Your task to perform on an android device: toggle notification dots Image 0: 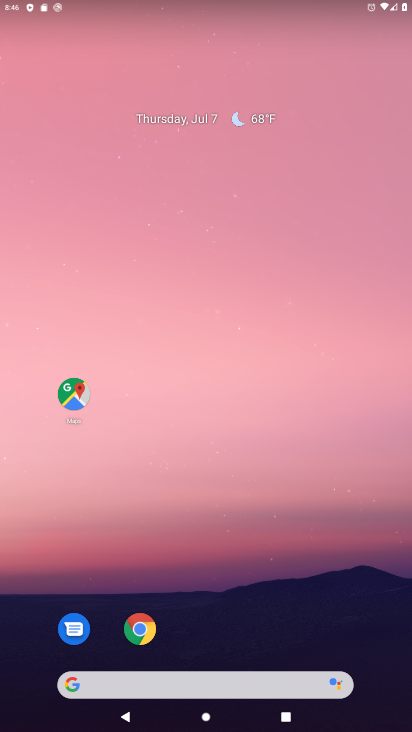
Step 0: drag from (216, 641) to (211, 140)
Your task to perform on an android device: toggle notification dots Image 1: 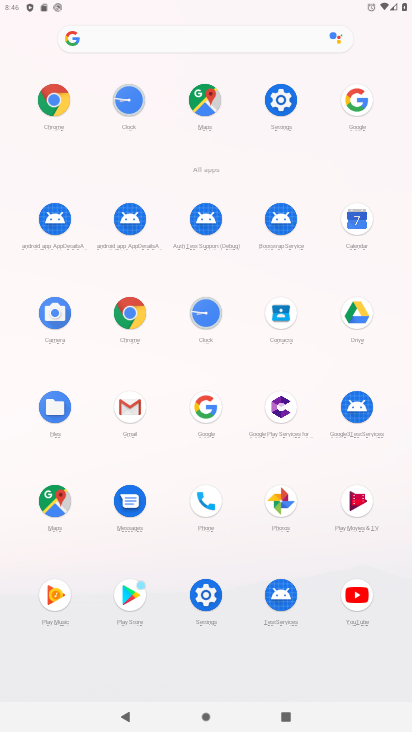
Step 1: click (283, 96)
Your task to perform on an android device: toggle notification dots Image 2: 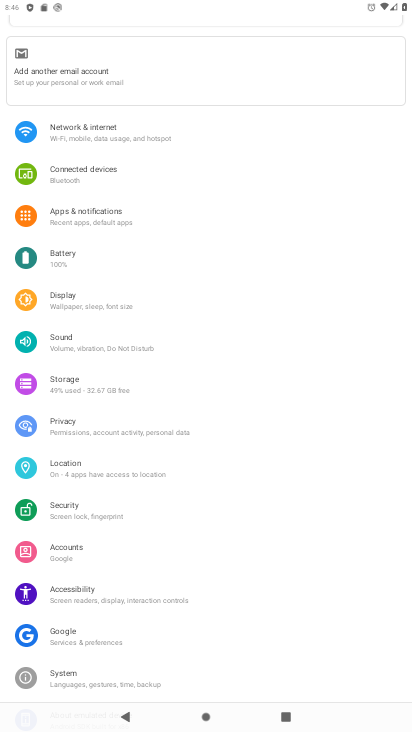
Step 2: click (122, 215)
Your task to perform on an android device: toggle notification dots Image 3: 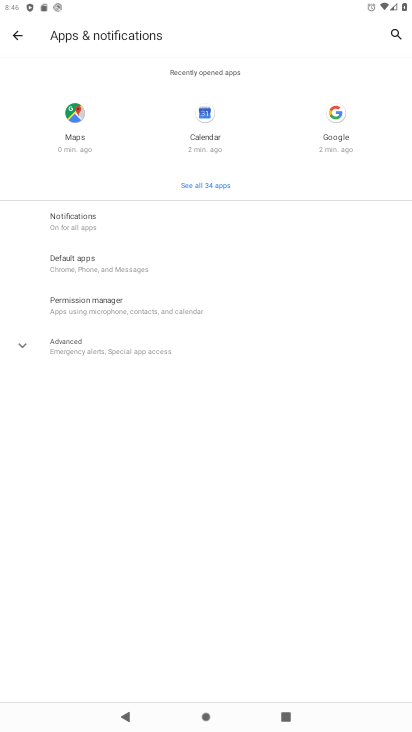
Step 3: click (98, 233)
Your task to perform on an android device: toggle notification dots Image 4: 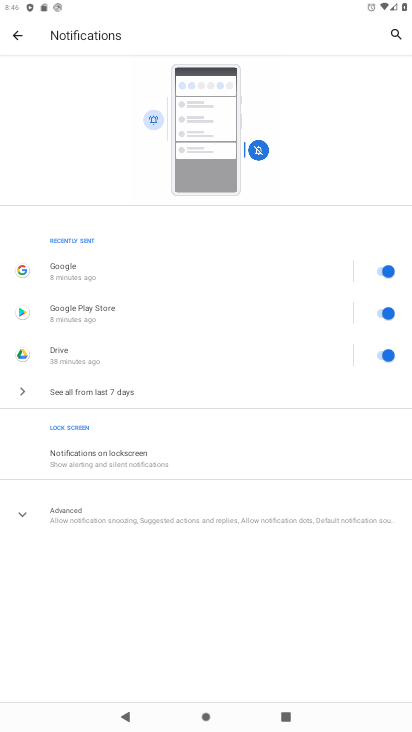
Step 4: click (113, 523)
Your task to perform on an android device: toggle notification dots Image 5: 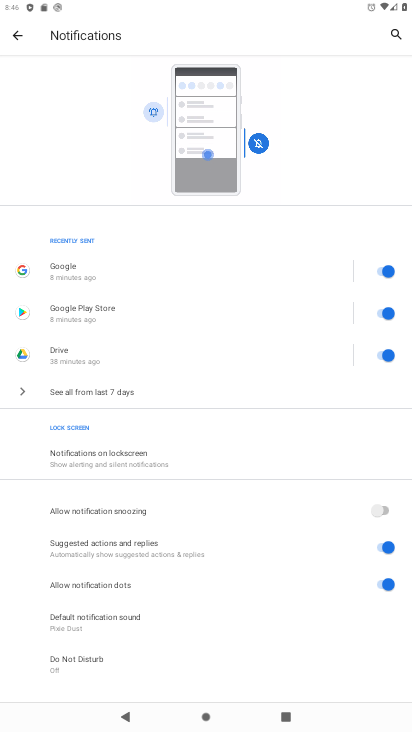
Step 5: click (377, 591)
Your task to perform on an android device: toggle notification dots Image 6: 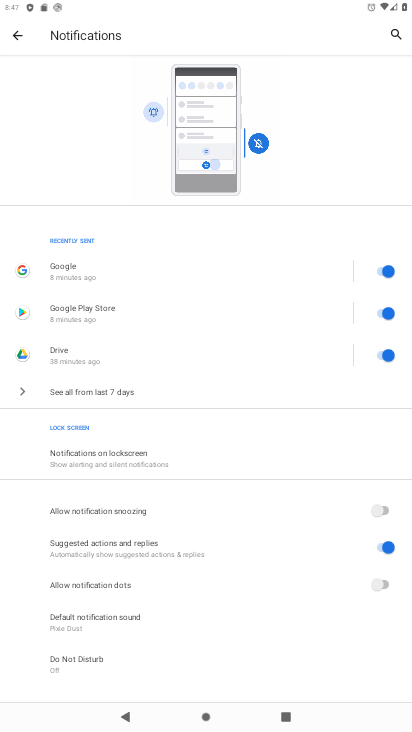
Step 6: task complete